Your task to perform on an android device: Search for a dining table on crateandbarrel.com Image 0: 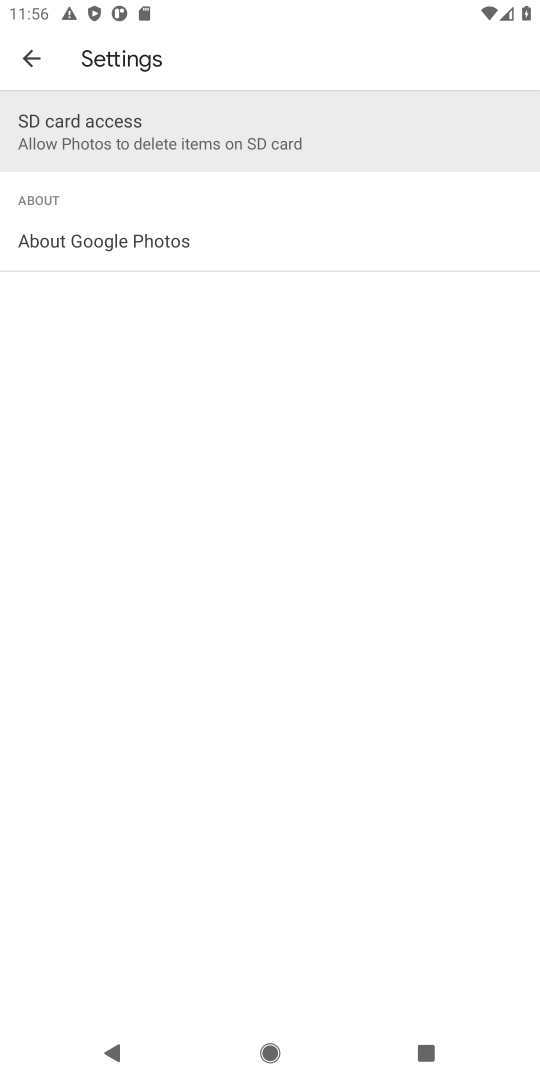
Step 0: press home button
Your task to perform on an android device: Search for a dining table on crateandbarrel.com Image 1: 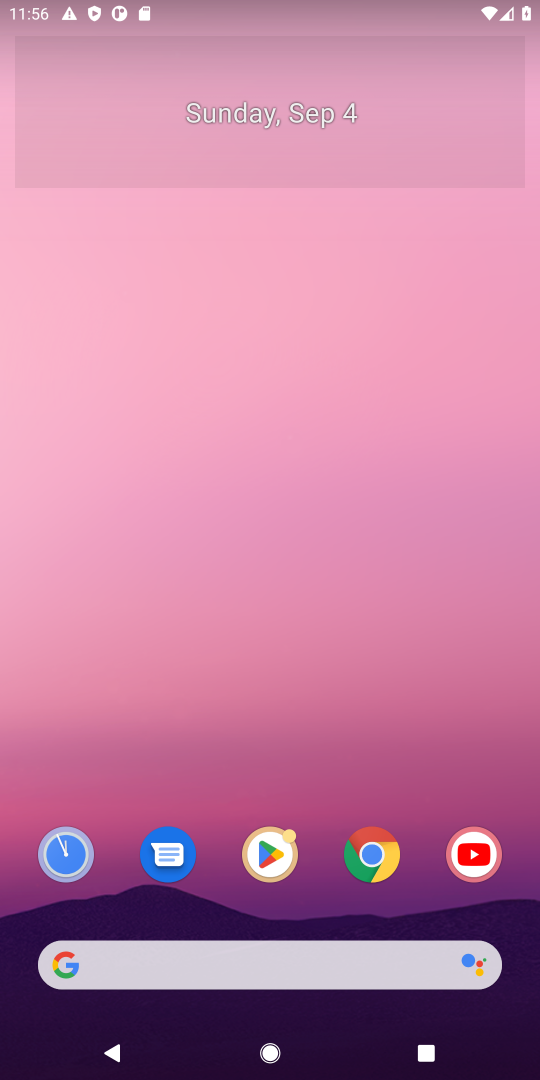
Step 1: click (353, 969)
Your task to perform on an android device: Search for a dining table on crateandbarrel.com Image 2: 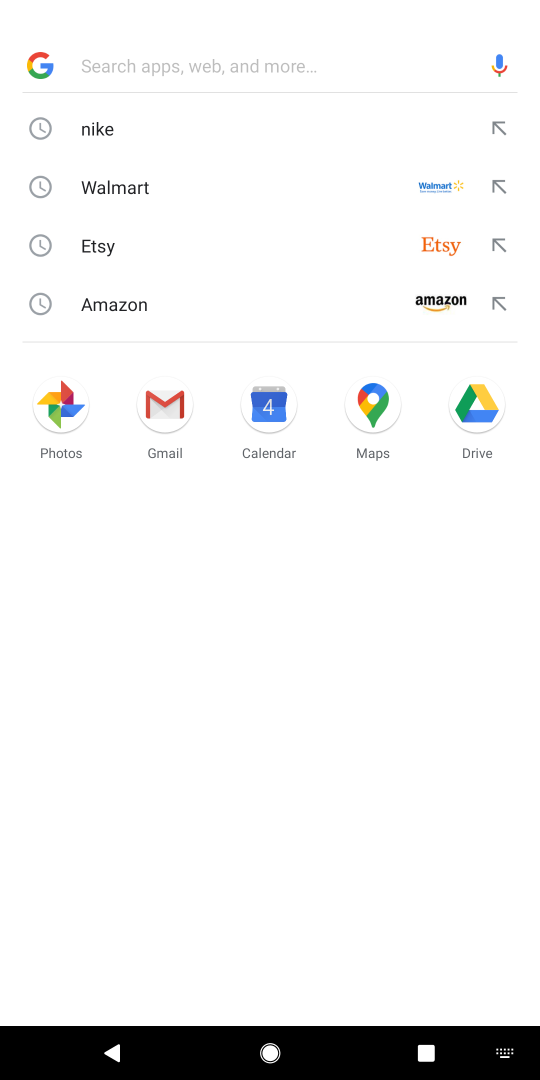
Step 2: type "crateandbarrel.com"
Your task to perform on an android device: Search for a dining table on crateandbarrel.com Image 3: 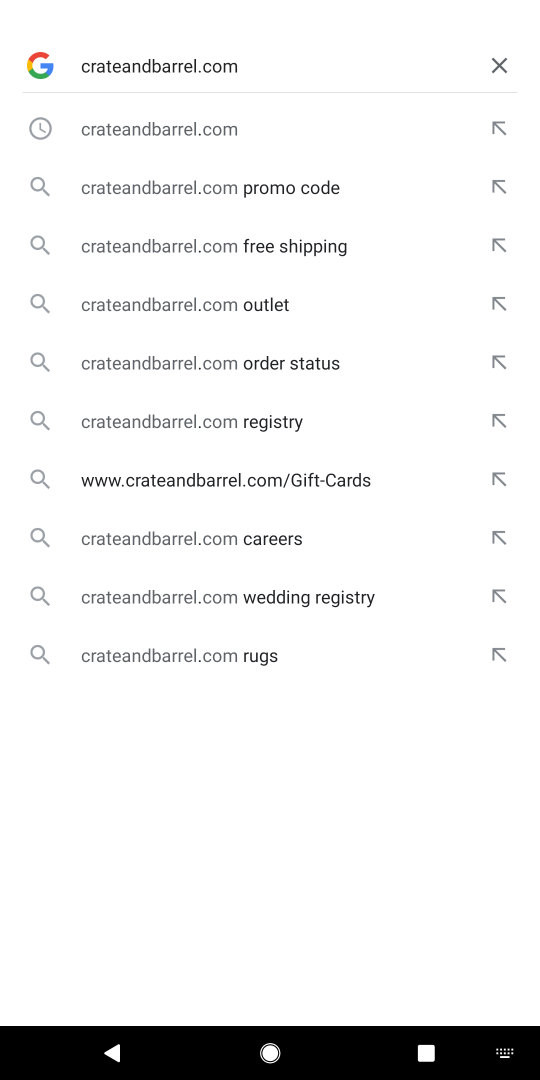
Step 3: press enter
Your task to perform on an android device: Search for a dining table on crateandbarrel.com Image 4: 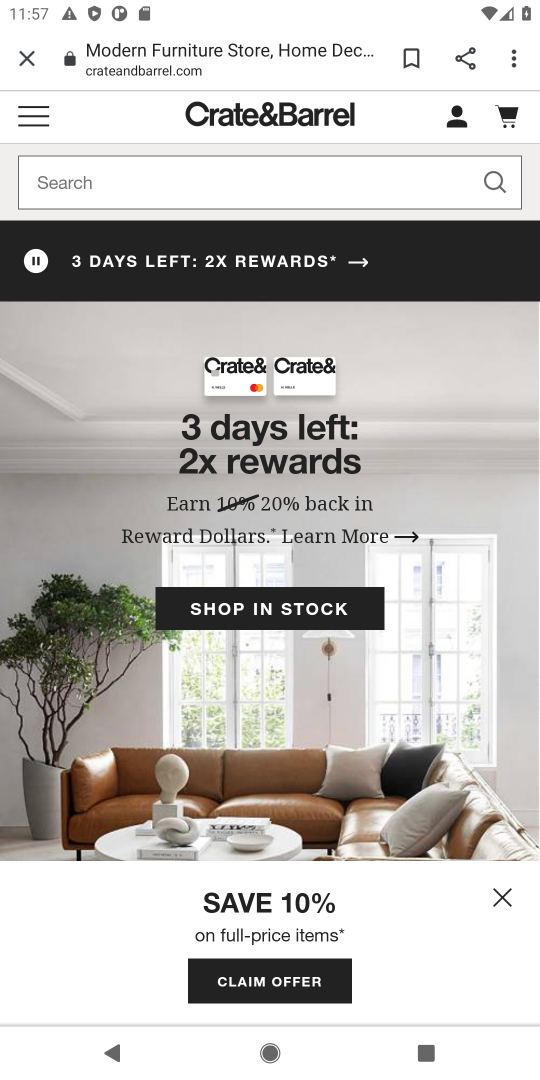
Step 4: click (165, 171)
Your task to perform on an android device: Search for a dining table on crateandbarrel.com Image 5: 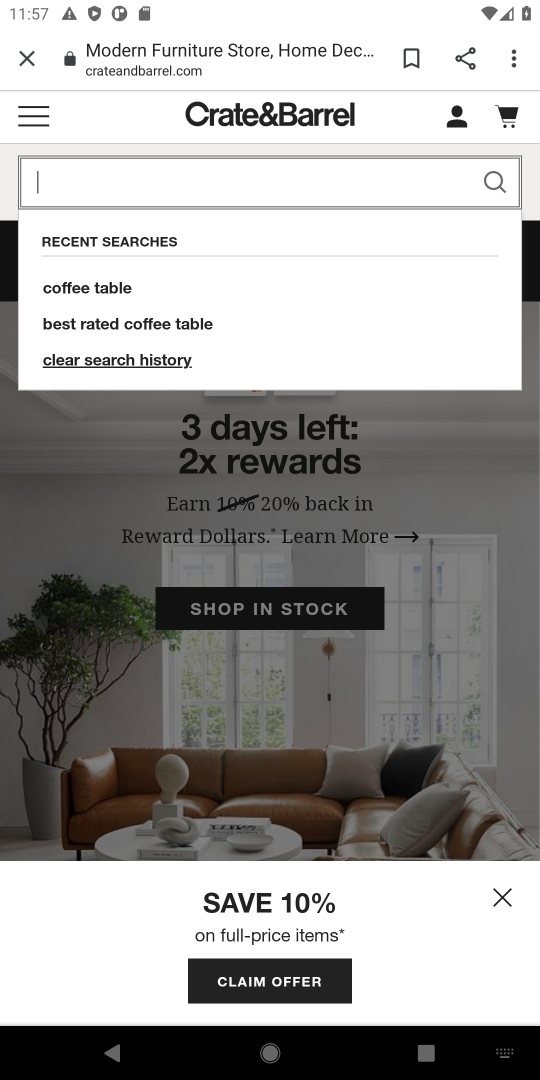
Step 5: press enter
Your task to perform on an android device: Search for a dining table on crateandbarrel.com Image 6: 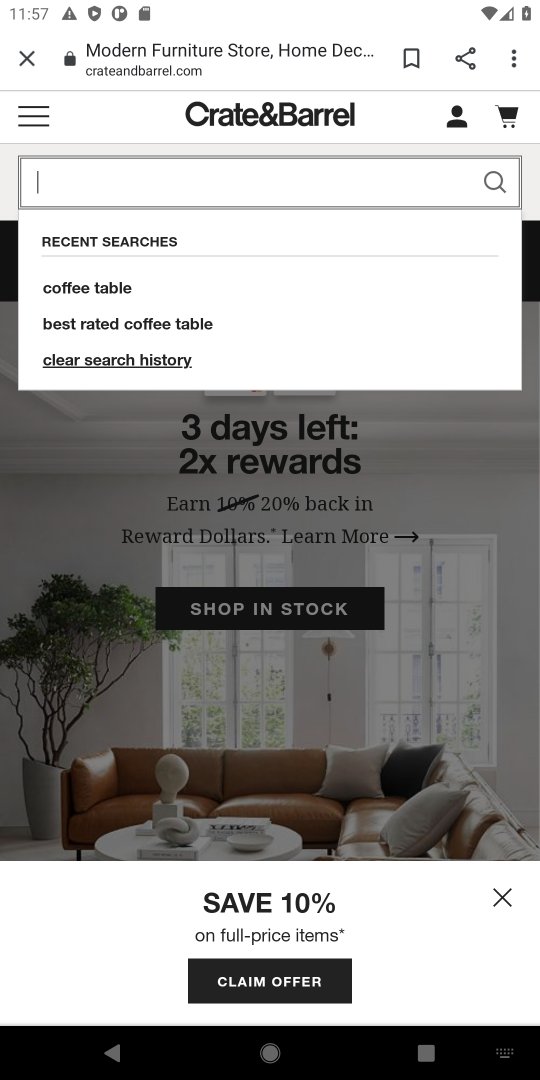
Step 6: type "dining table"
Your task to perform on an android device: Search for a dining table on crateandbarrel.com Image 7: 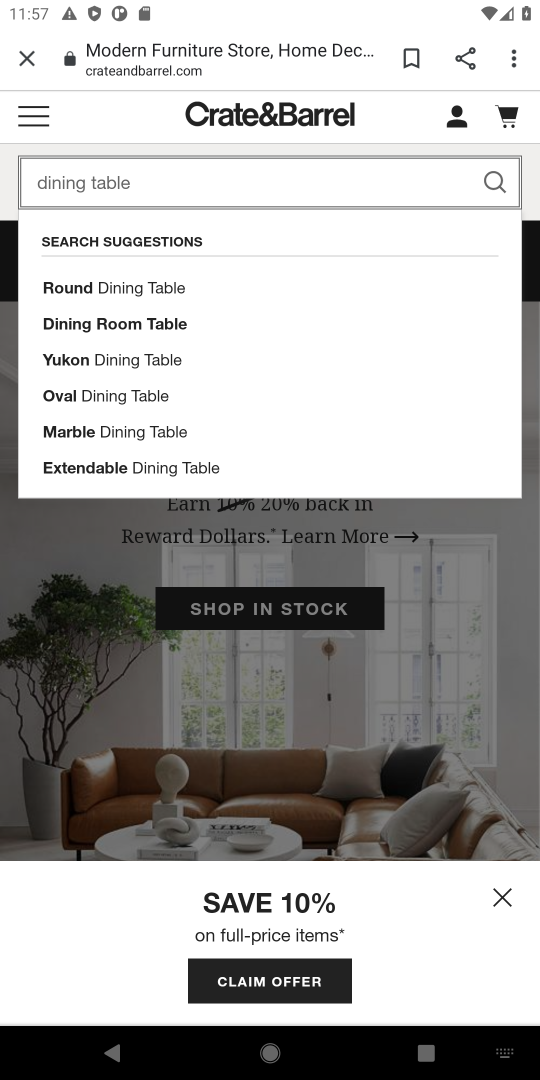
Step 7: click (495, 172)
Your task to perform on an android device: Search for a dining table on crateandbarrel.com Image 8: 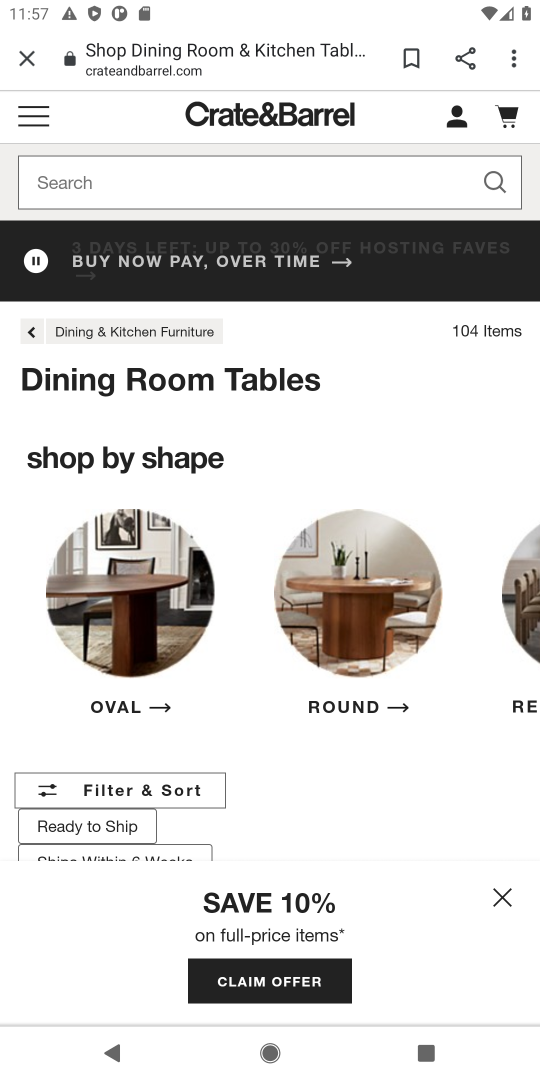
Step 8: task complete